Your task to perform on an android device: Add "acer nitro" to the cart on bestbuy Image 0: 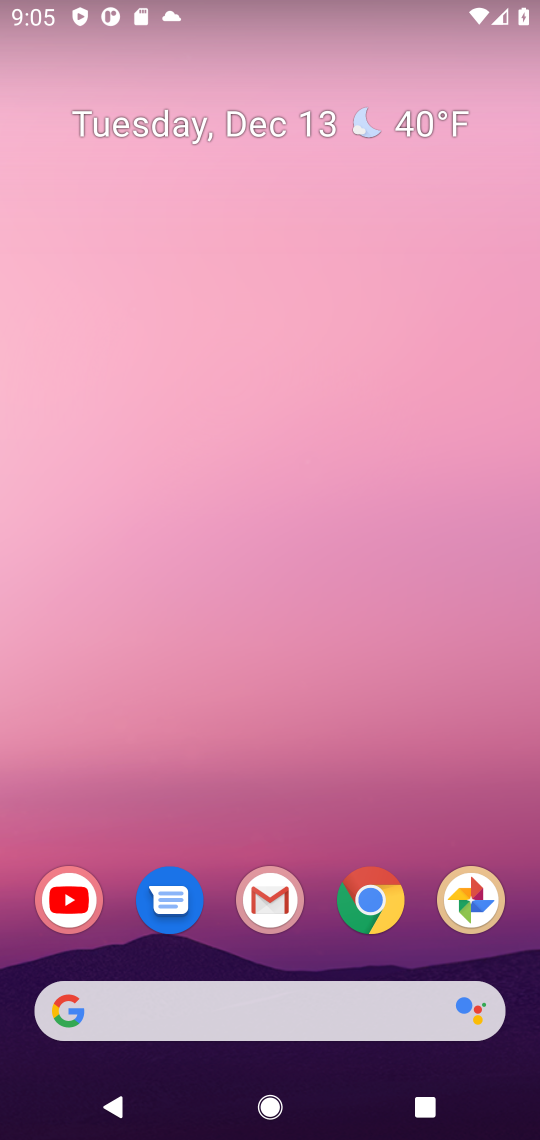
Step 0: click (364, 887)
Your task to perform on an android device: Add "acer nitro" to the cart on bestbuy Image 1: 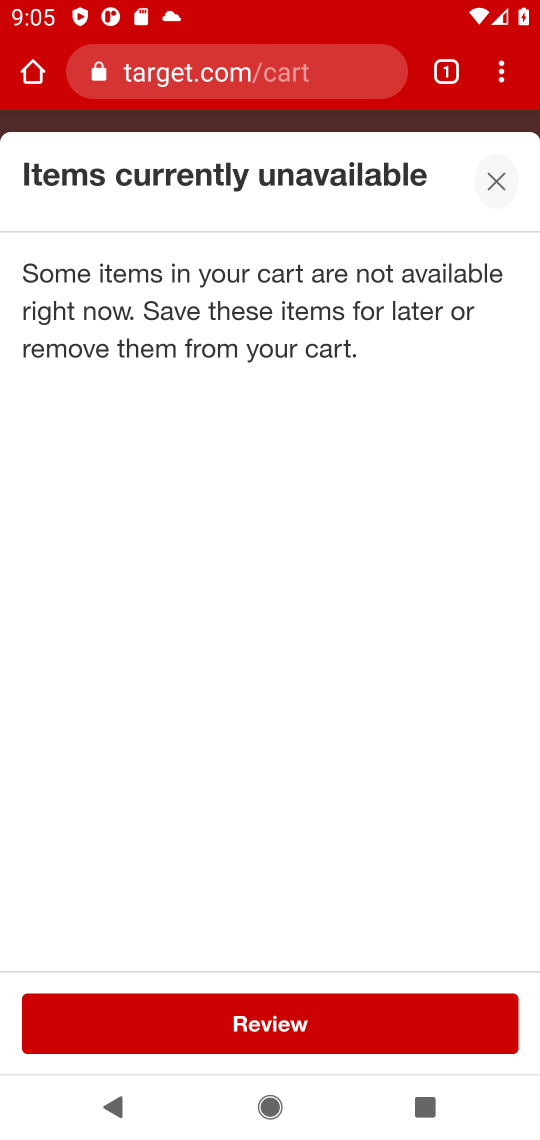
Step 1: click (248, 74)
Your task to perform on an android device: Add "acer nitro" to the cart on bestbuy Image 2: 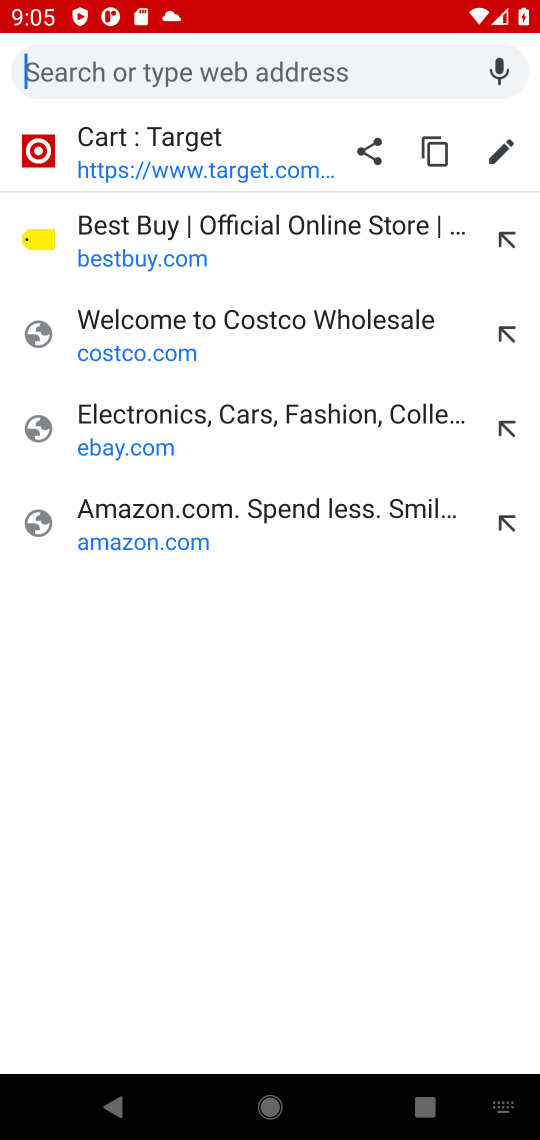
Step 2: click (164, 250)
Your task to perform on an android device: Add "acer nitro" to the cart on bestbuy Image 3: 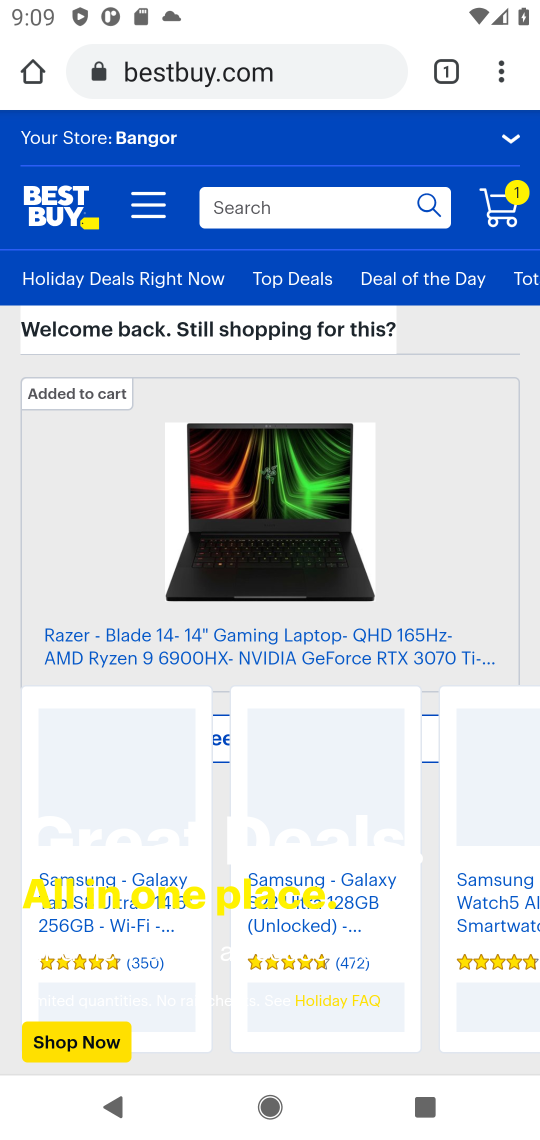
Step 3: task complete